Your task to perform on an android device: change timer sound Image 0: 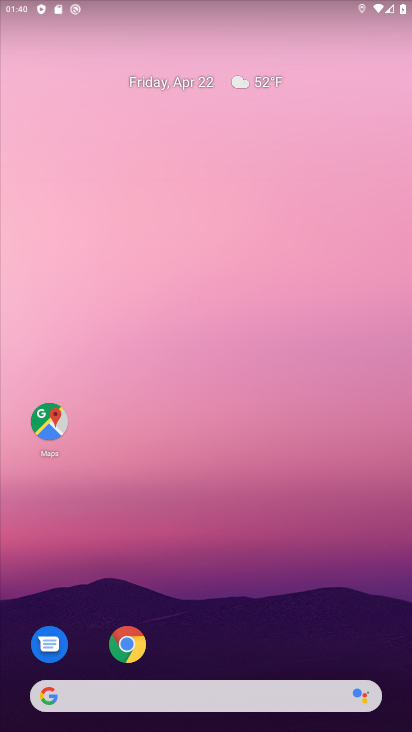
Step 0: drag from (314, 531) to (242, 179)
Your task to perform on an android device: change timer sound Image 1: 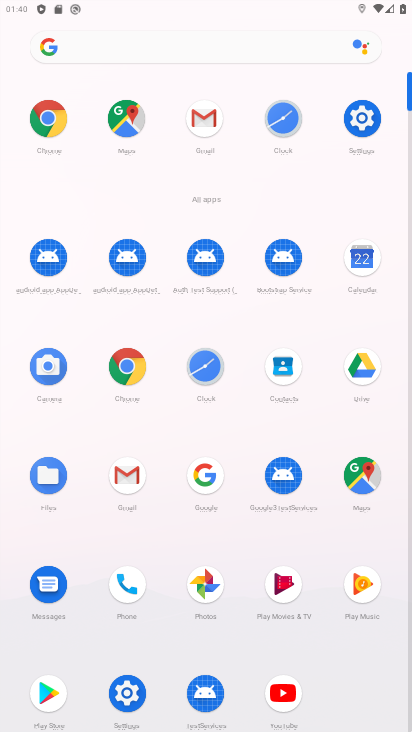
Step 1: click (278, 119)
Your task to perform on an android device: change timer sound Image 2: 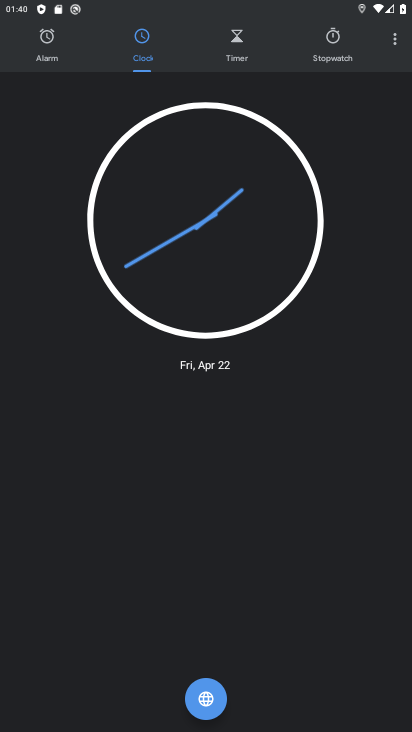
Step 2: click (398, 48)
Your task to perform on an android device: change timer sound Image 3: 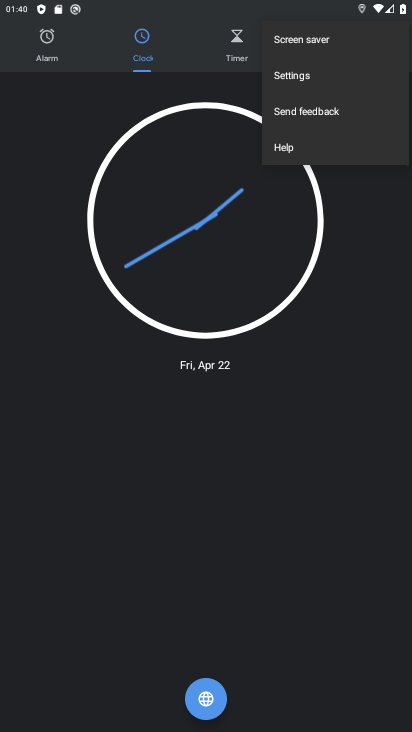
Step 3: click (364, 76)
Your task to perform on an android device: change timer sound Image 4: 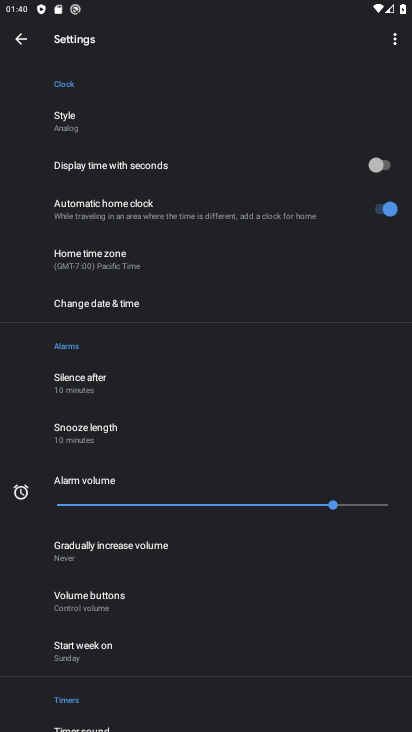
Step 4: drag from (186, 621) to (170, 375)
Your task to perform on an android device: change timer sound Image 5: 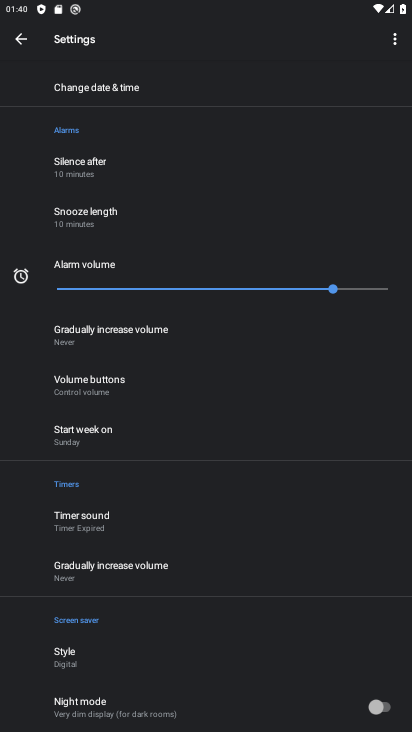
Step 5: click (165, 527)
Your task to perform on an android device: change timer sound Image 6: 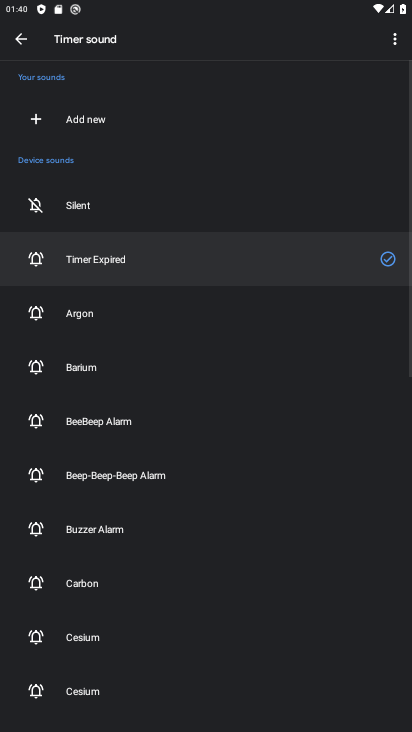
Step 6: click (136, 532)
Your task to perform on an android device: change timer sound Image 7: 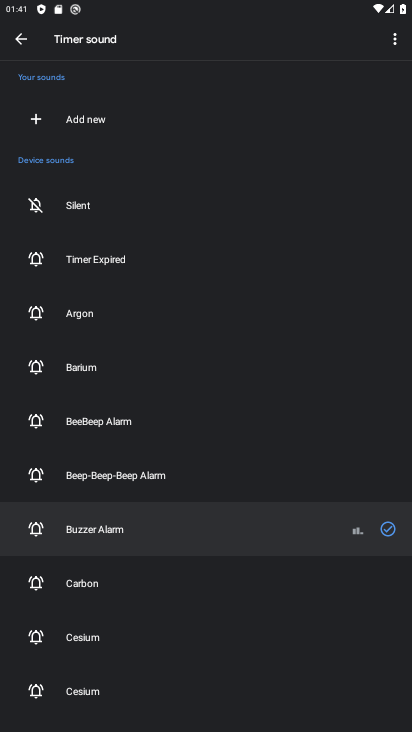
Step 7: task complete